Your task to perform on an android device: turn on wifi Image 0: 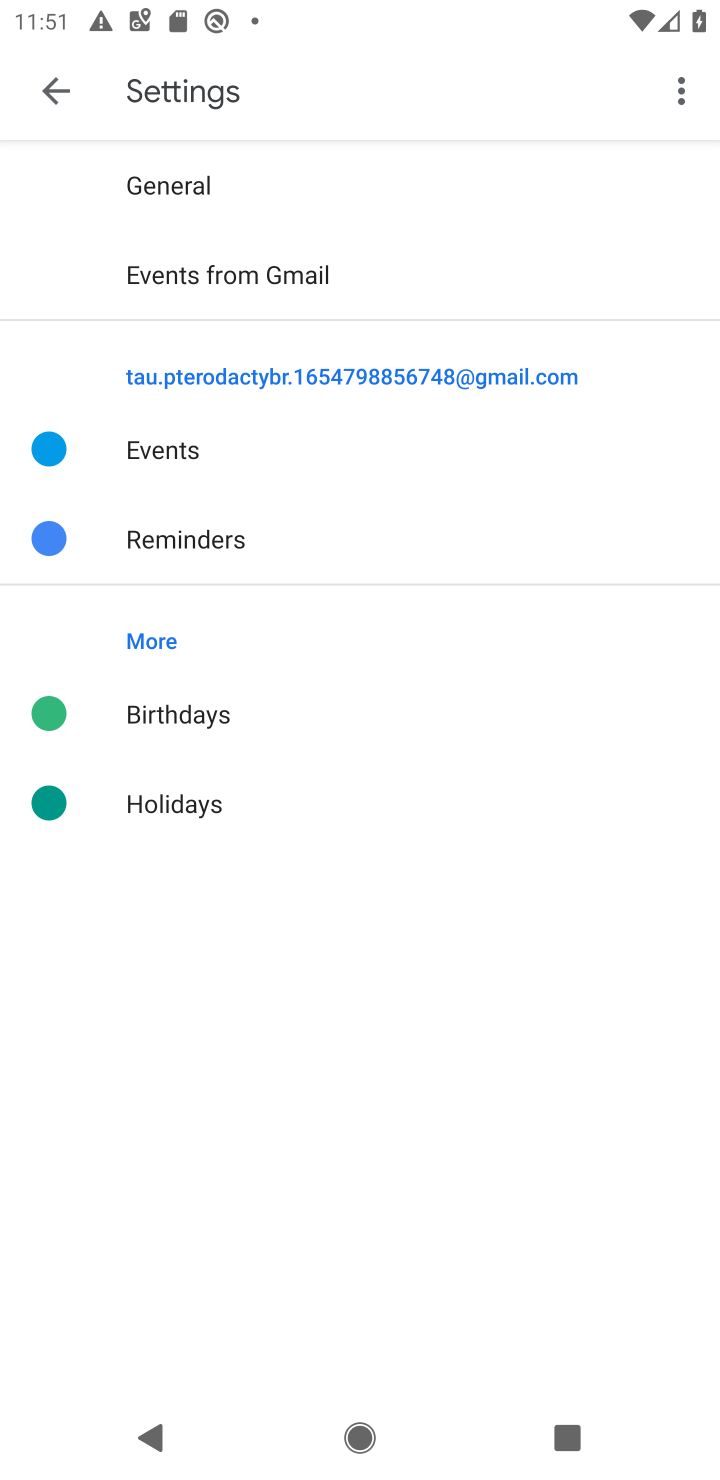
Step 0: press home button
Your task to perform on an android device: turn on wifi Image 1: 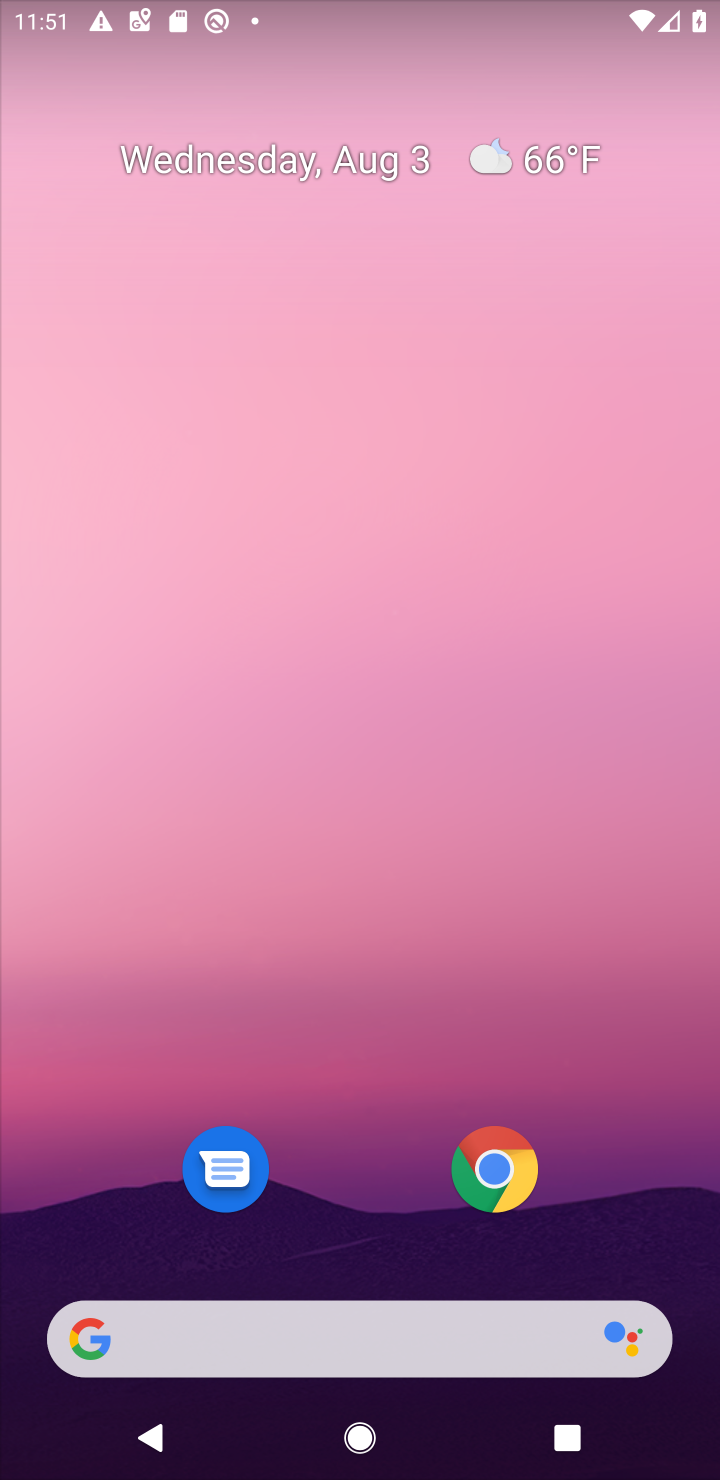
Step 1: drag from (592, 1073) to (634, 66)
Your task to perform on an android device: turn on wifi Image 2: 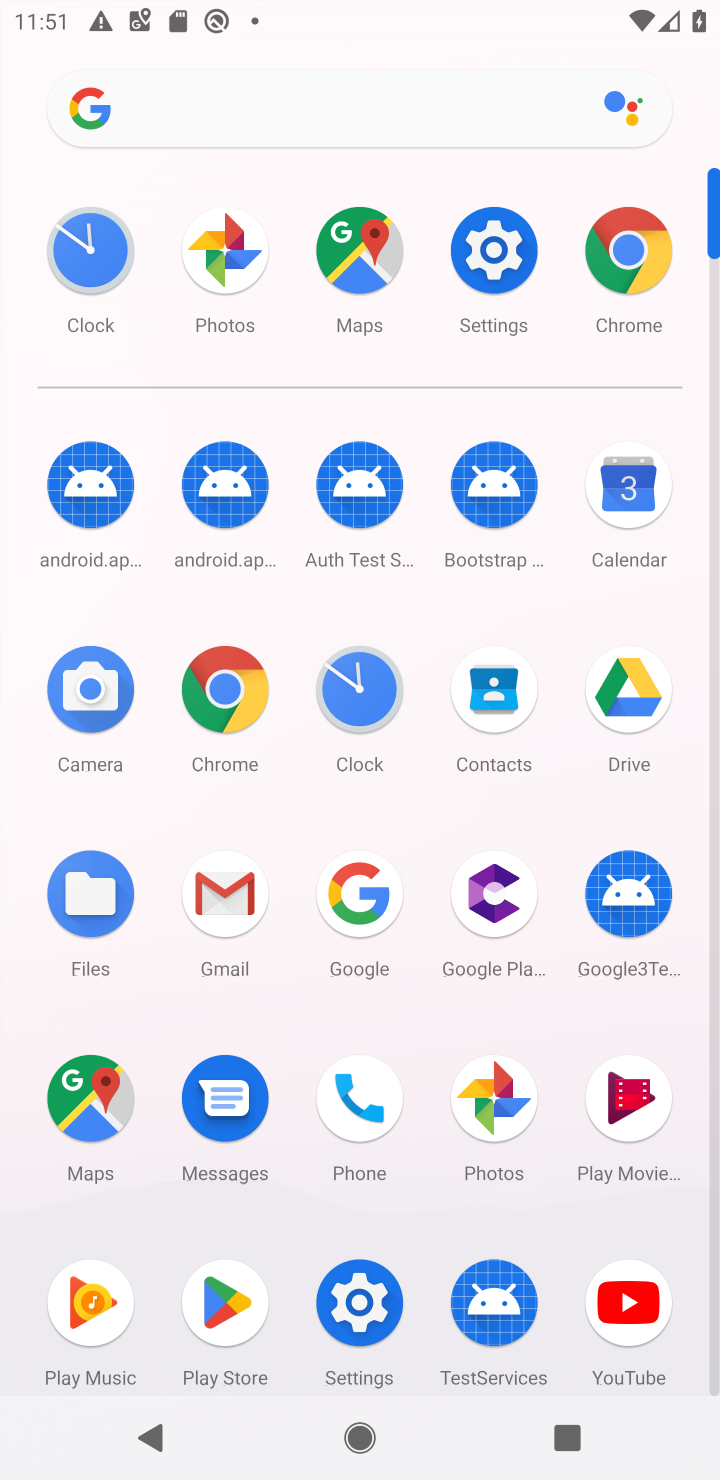
Step 2: click (487, 250)
Your task to perform on an android device: turn on wifi Image 3: 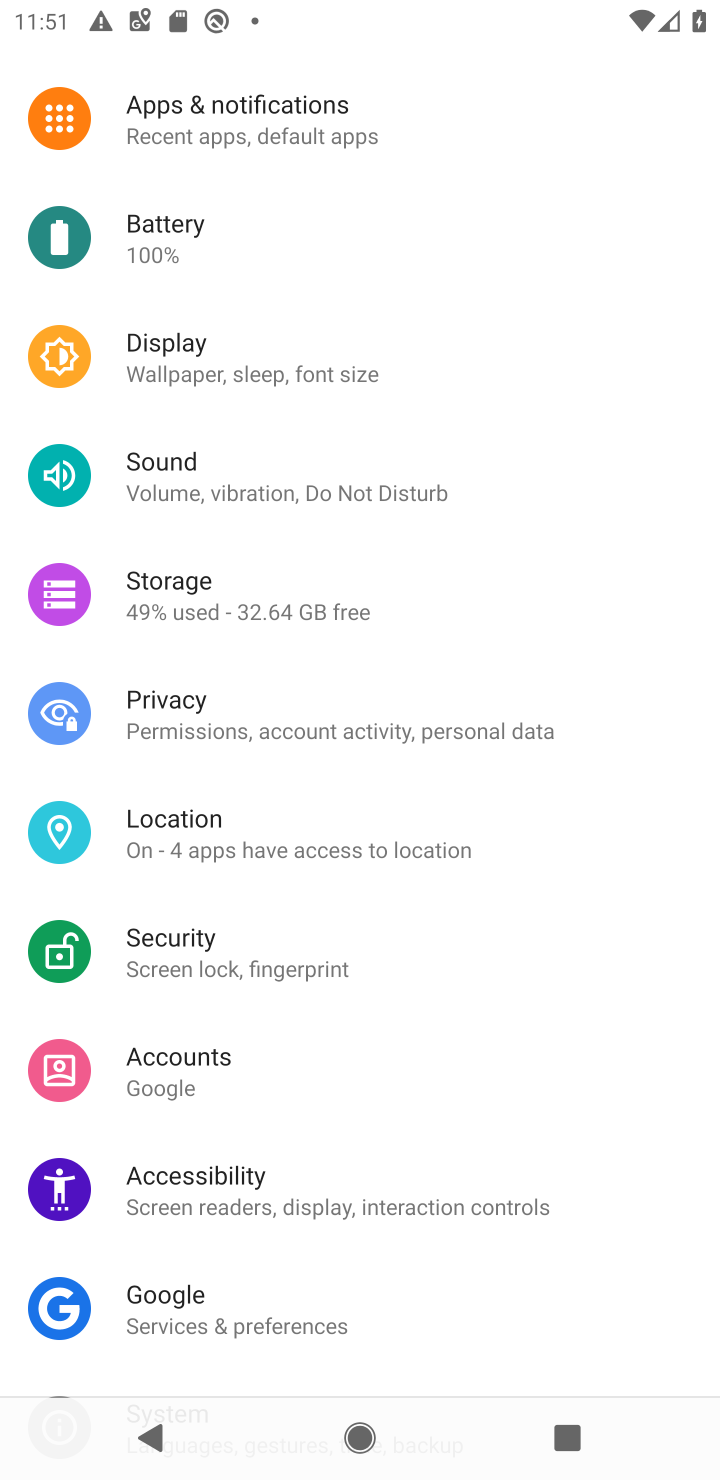
Step 3: drag from (512, 256) to (535, 860)
Your task to perform on an android device: turn on wifi Image 4: 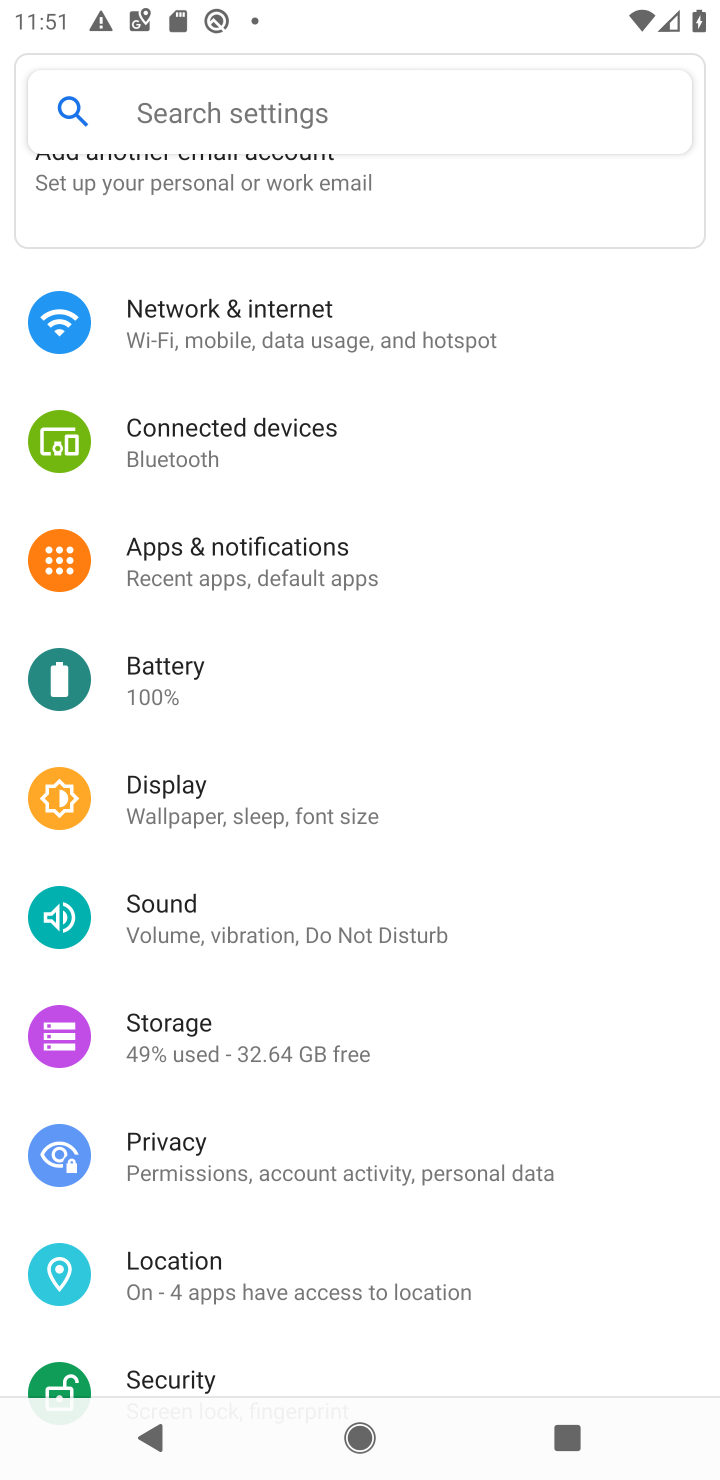
Step 4: click (236, 336)
Your task to perform on an android device: turn on wifi Image 5: 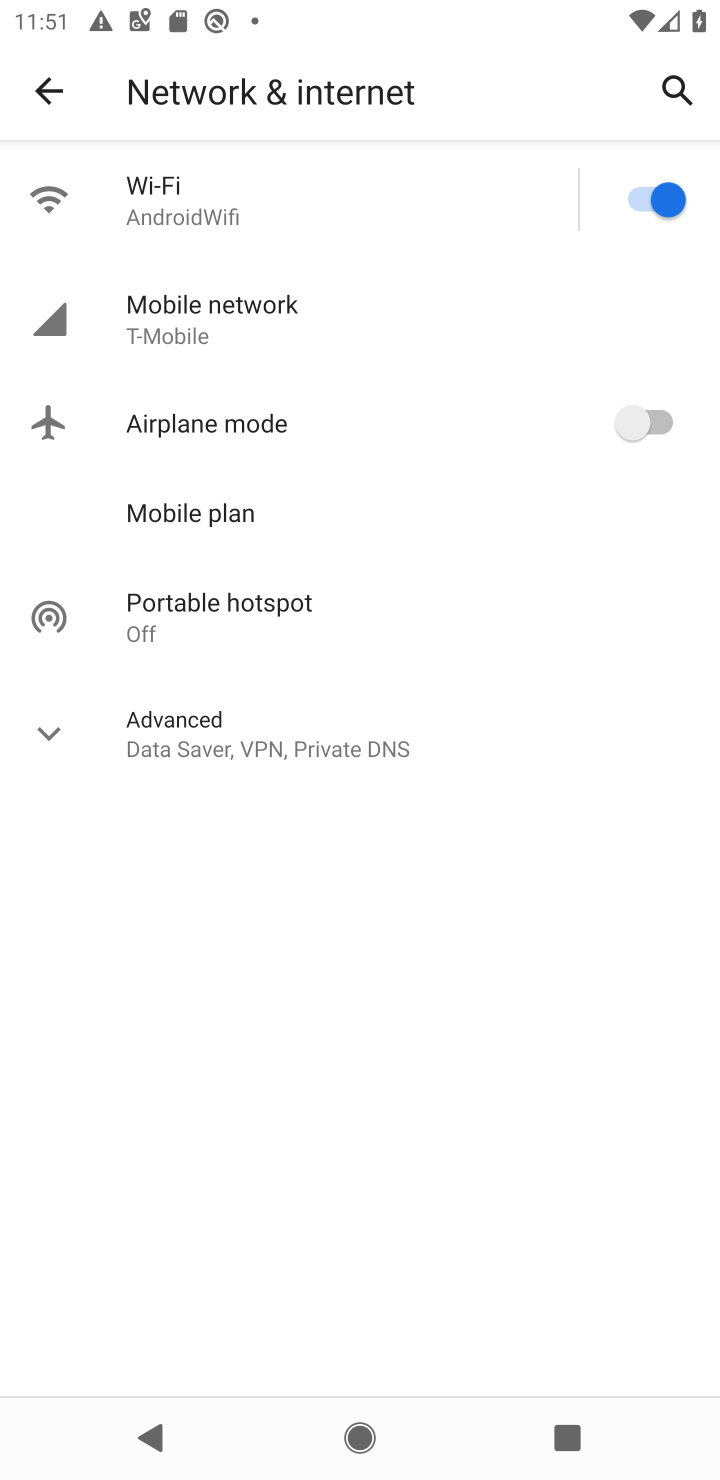
Step 5: task complete